Your task to perform on an android device: change the clock display to show seconds Image 0: 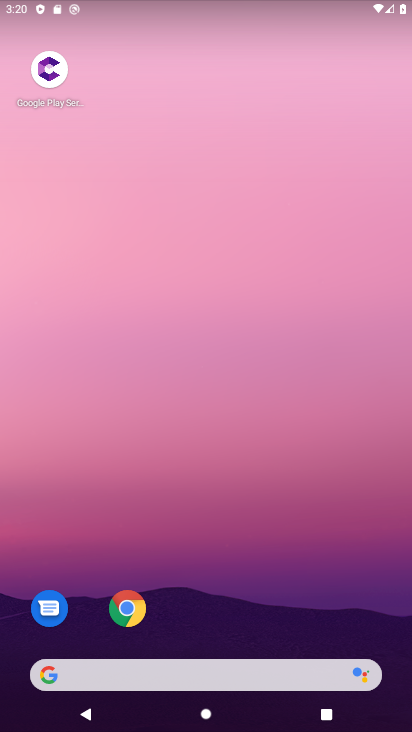
Step 0: drag from (222, 575) to (299, 232)
Your task to perform on an android device: change the clock display to show seconds Image 1: 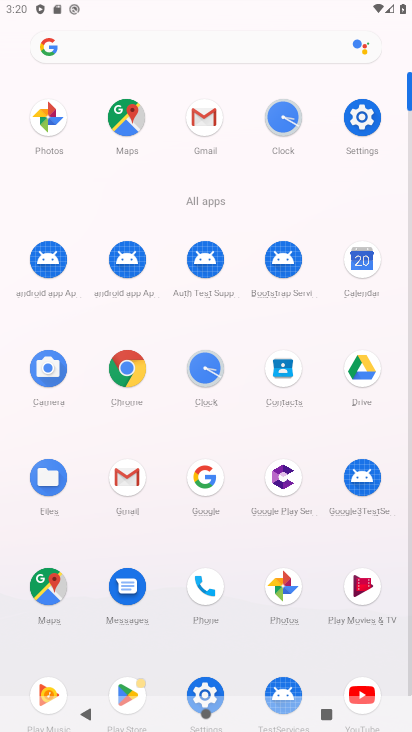
Step 1: click (204, 370)
Your task to perform on an android device: change the clock display to show seconds Image 2: 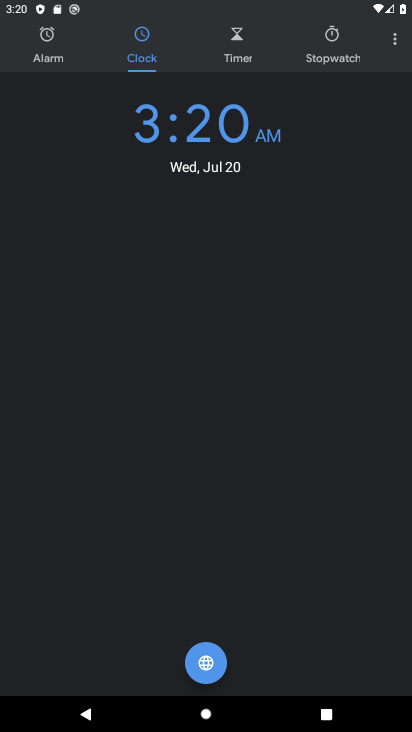
Step 2: click (389, 35)
Your task to perform on an android device: change the clock display to show seconds Image 3: 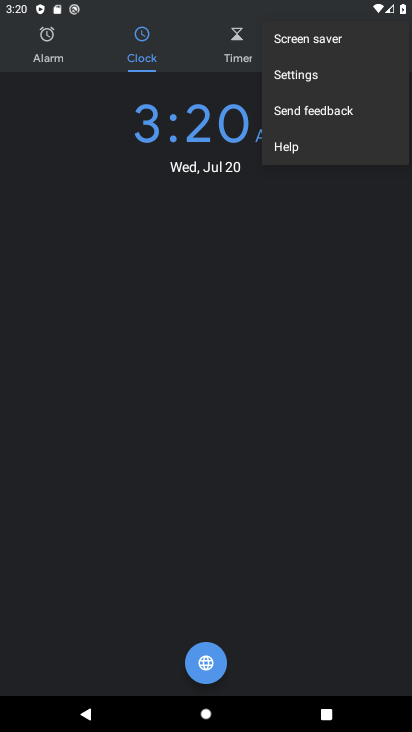
Step 3: click (352, 71)
Your task to perform on an android device: change the clock display to show seconds Image 4: 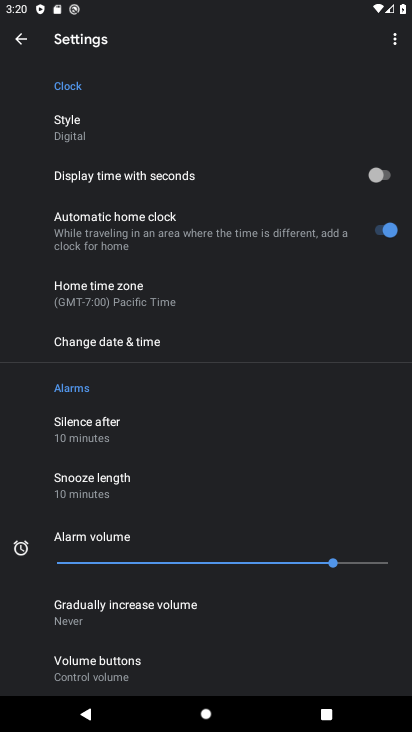
Step 4: click (391, 179)
Your task to perform on an android device: change the clock display to show seconds Image 5: 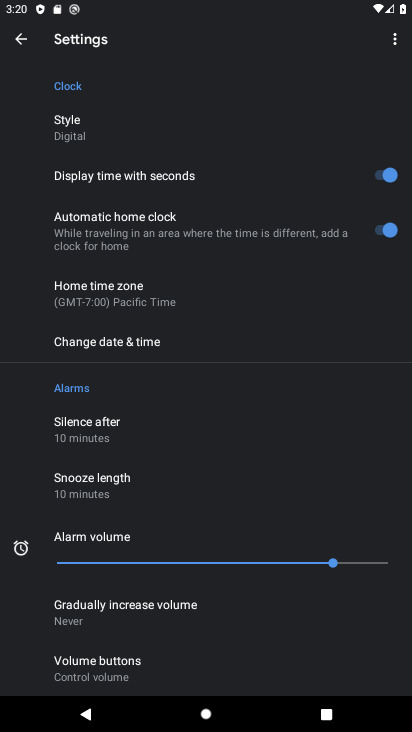
Step 5: task complete